Your task to perform on an android device: change keyboard looks Image 0: 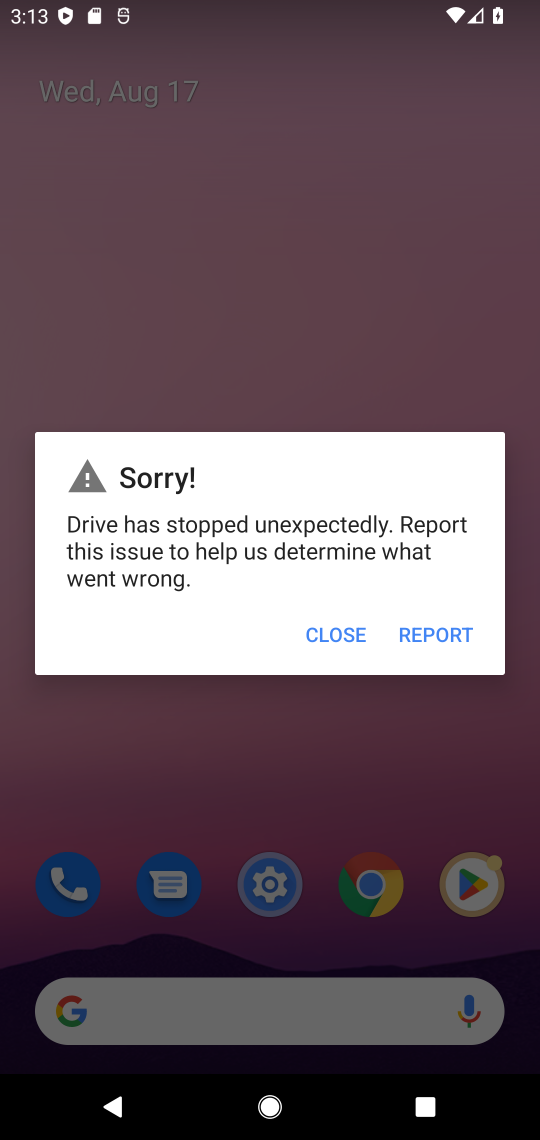
Step 0: press home button
Your task to perform on an android device: change keyboard looks Image 1: 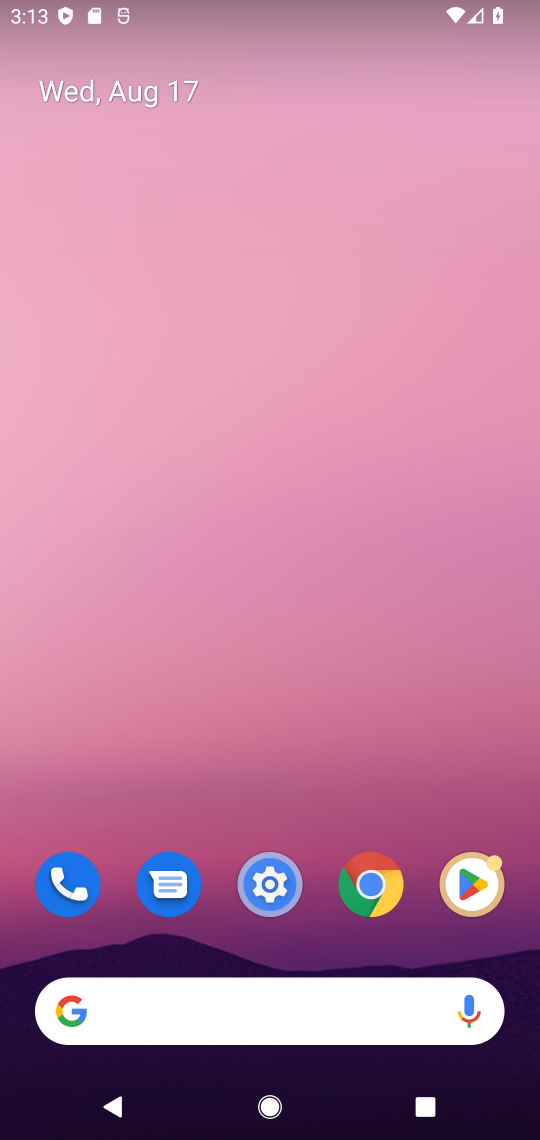
Step 1: drag from (391, 832) to (364, 622)
Your task to perform on an android device: change keyboard looks Image 2: 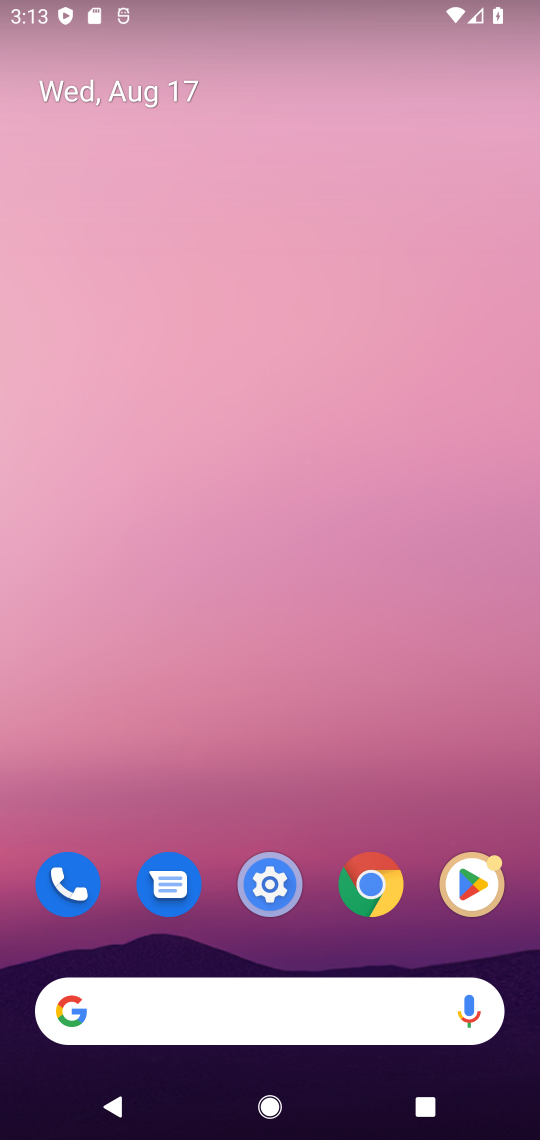
Step 2: click (267, 882)
Your task to perform on an android device: change keyboard looks Image 3: 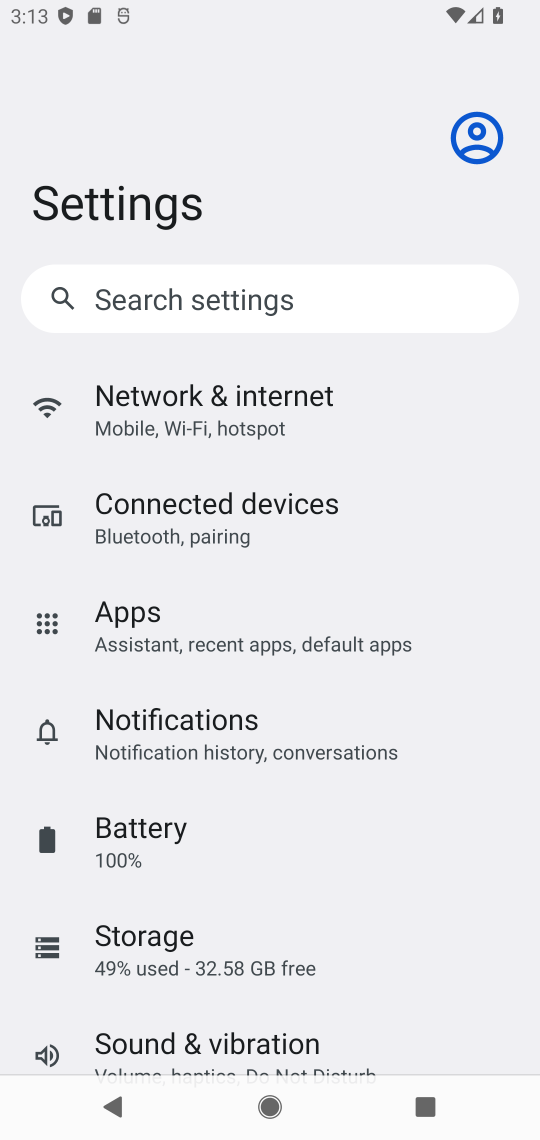
Step 3: drag from (370, 731) to (419, 29)
Your task to perform on an android device: change keyboard looks Image 4: 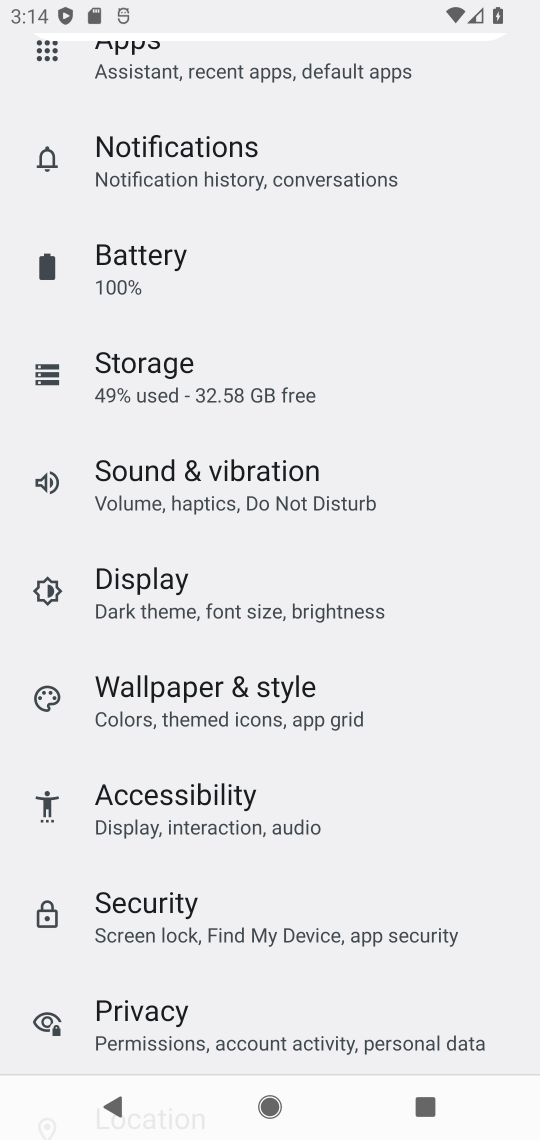
Step 4: drag from (438, 824) to (475, 193)
Your task to perform on an android device: change keyboard looks Image 5: 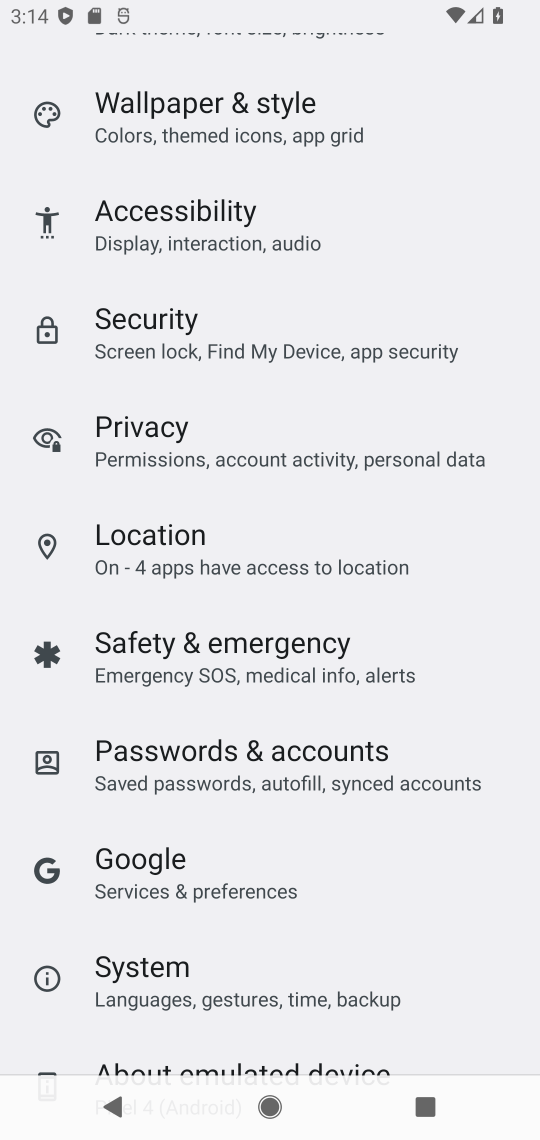
Step 5: click (246, 998)
Your task to perform on an android device: change keyboard looks Image 6: 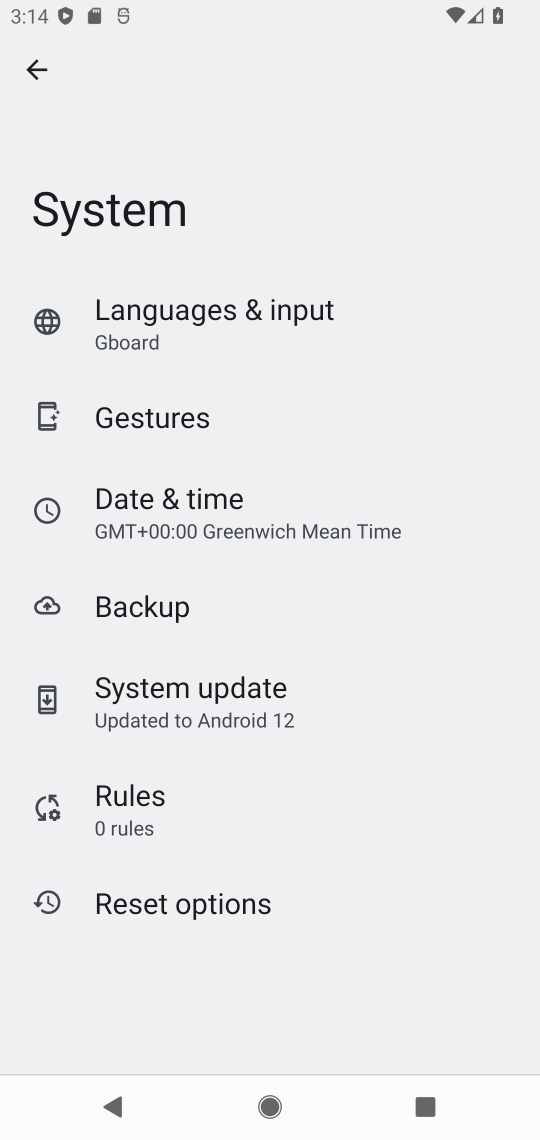
Step 6: click (223, 315)
Your task to perform on an android device: change keyboard looks Image 7: 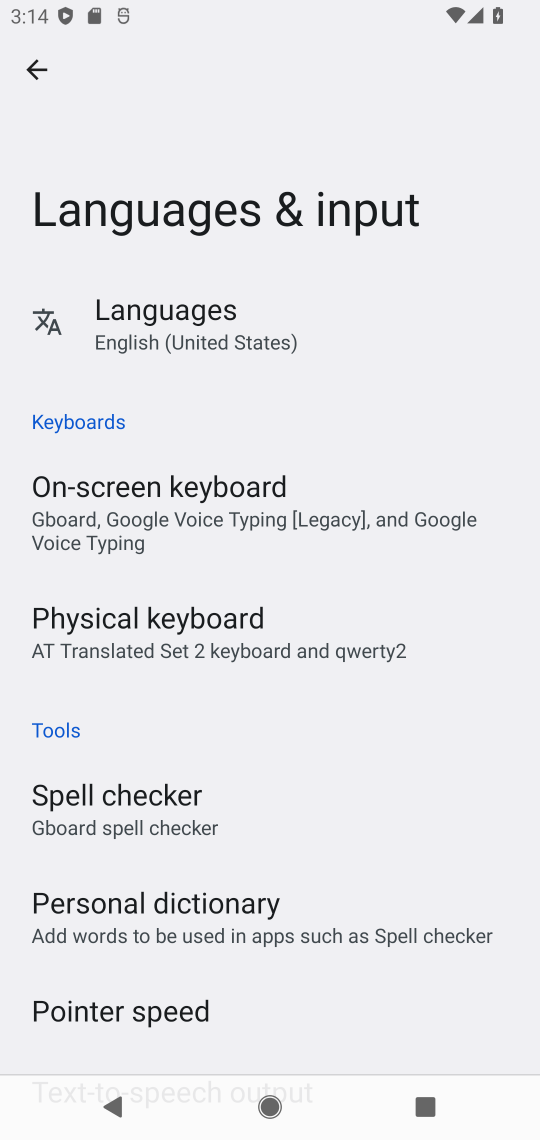
Step 7: click (246, 495)
Your task to perform on an android device: change keyboard looks Image 8: 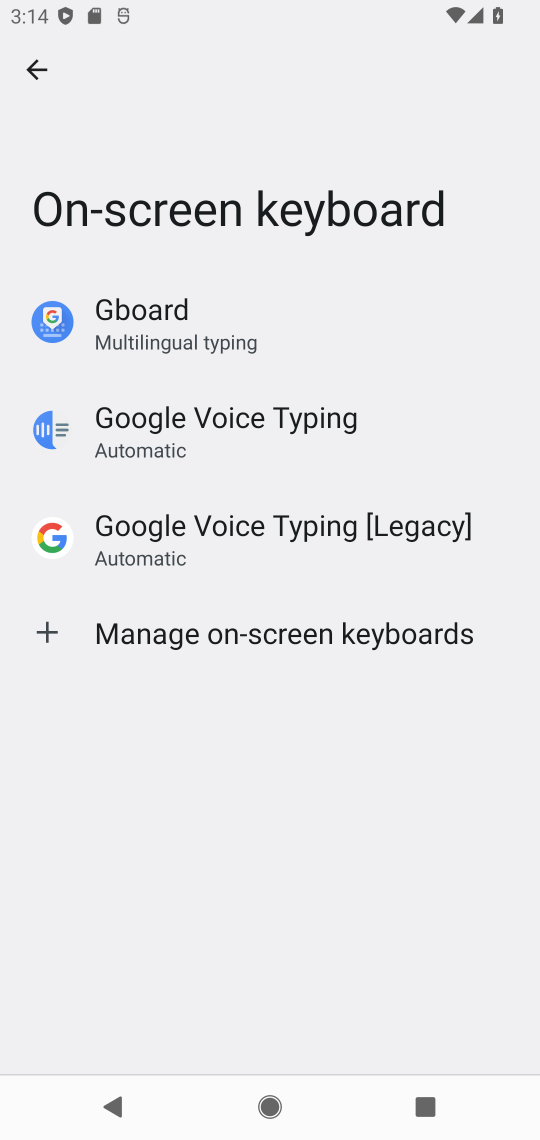
Step 8: click (284, 333)
Your task to perform on an android device: change keyboard looks Image 9: 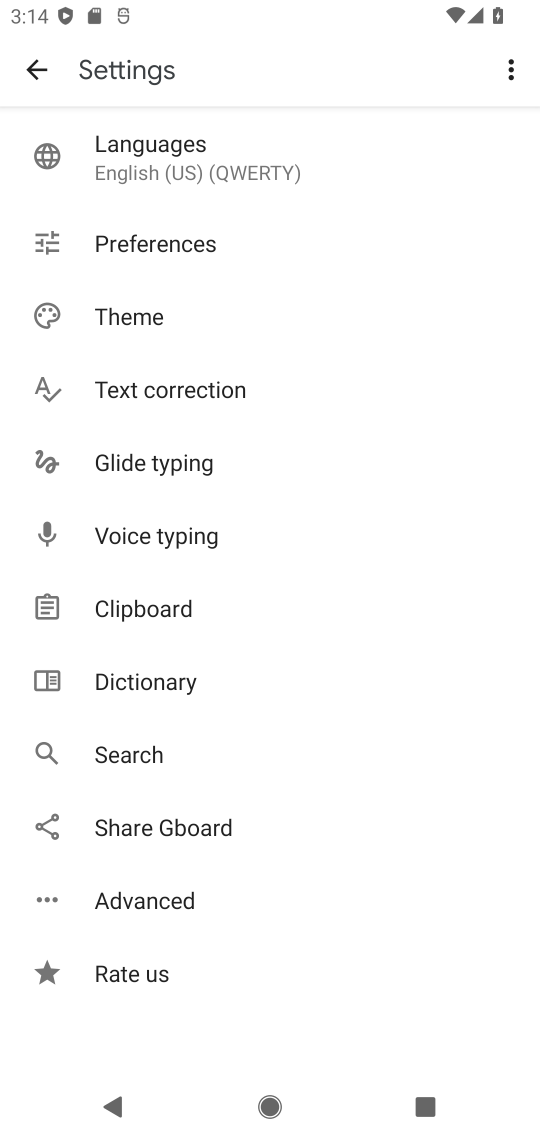
Step 9: click (239, 317)
Your task to perform on an android device: change keyboard looks Image 10: 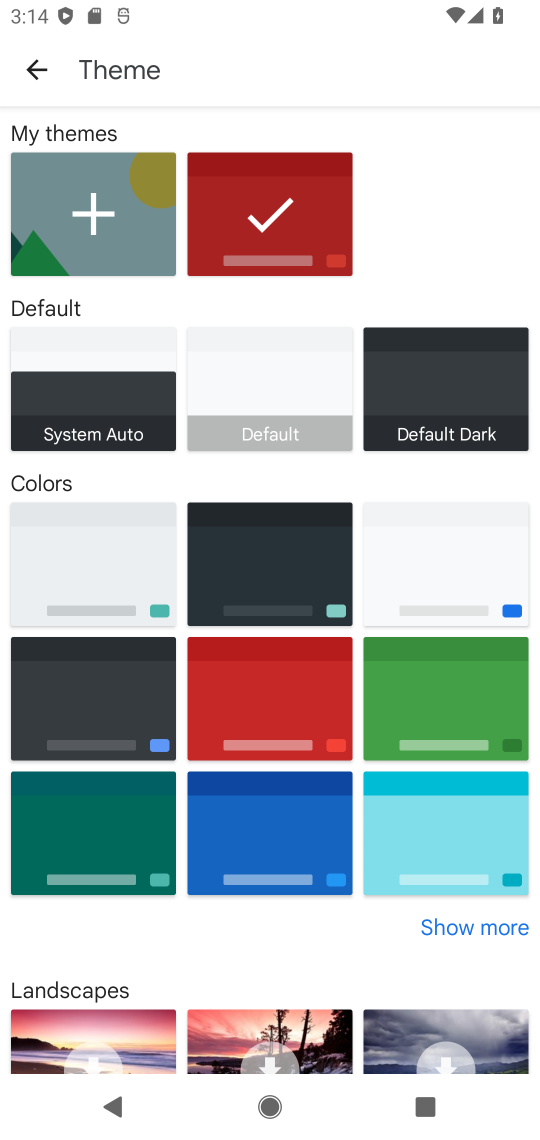
Step 10: click (301, 678)
Your task to perform on an android device: change keyboard looks Image 11: 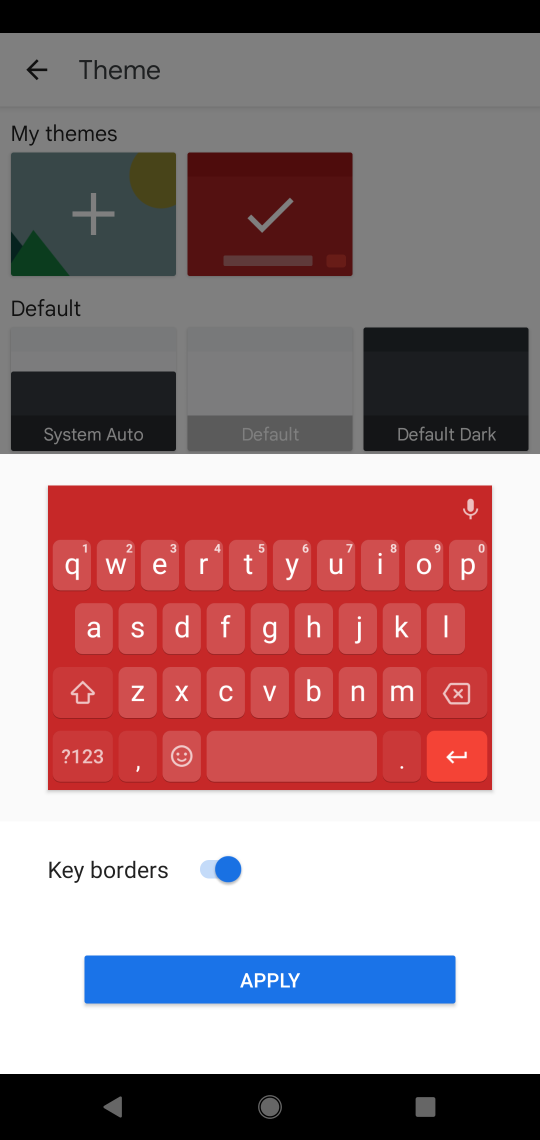
Step 11: click (387, 974)
Your task to perform on an android device: change keyboard looks Image 12: 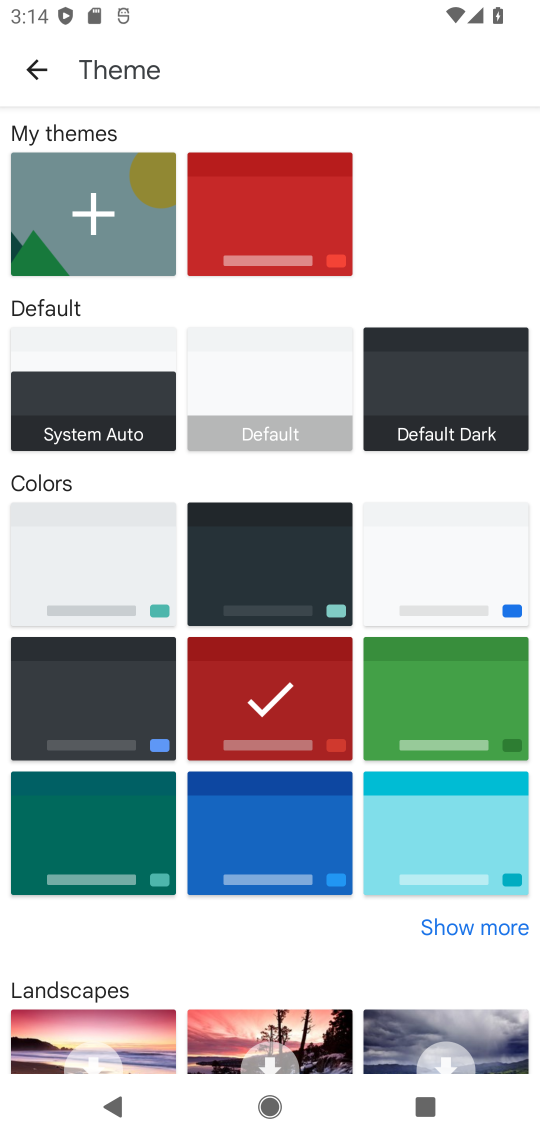
Step 12: task complete